Your task to perform on an android device: Open Google Maps and go to "Timeline" Image 0: 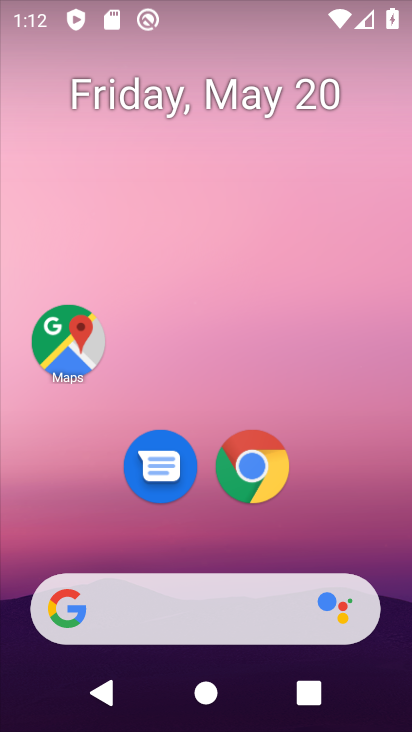
Step 0: click (74, 365)
Your task to perform on an android device: Open Google Maps and go to "Timeline" Image 1: 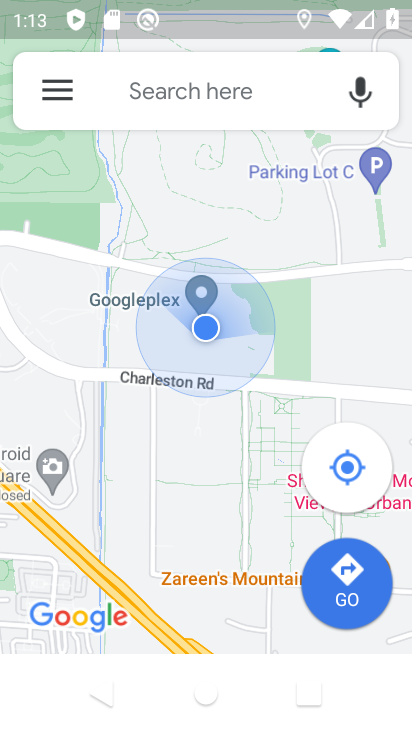
Step 1: click (41, 91)
Your task to perform on an android device: Open Google Maps and go to "Timeline" Image 2: 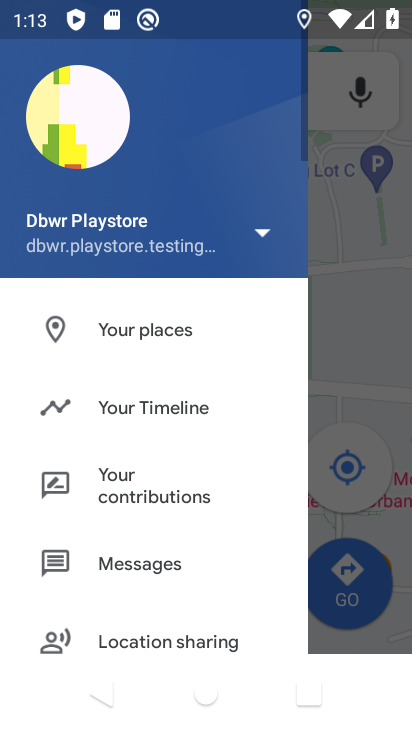
Step 2: click (128, 387)
Your task to perform on an android device: Open Google Maps and go to "Timeline" Image 3: 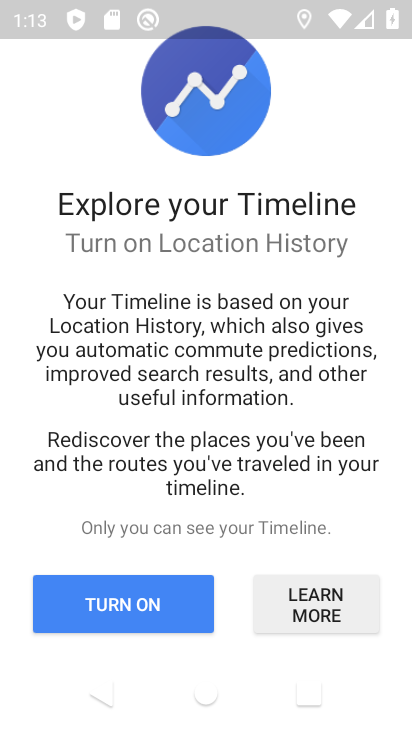
Step 3: click (177, 601)
Your task to perform on an android device: Open Google Maps and go to "Timeline" Image 4: 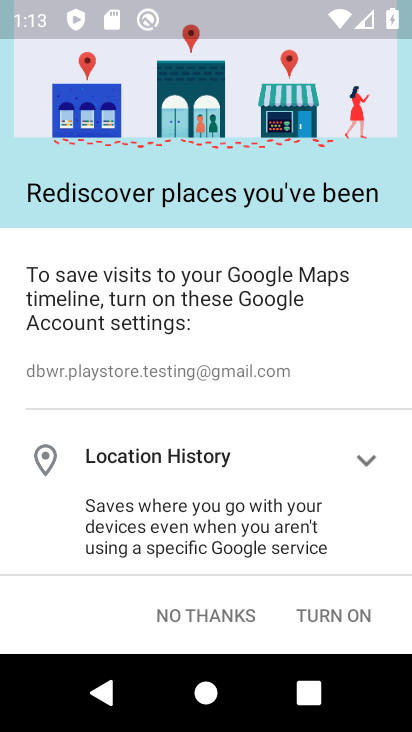
Step 4: click (309, 605)
Your task to perform on an android device: Open Google Maps and go to "Timeline" Image 5: 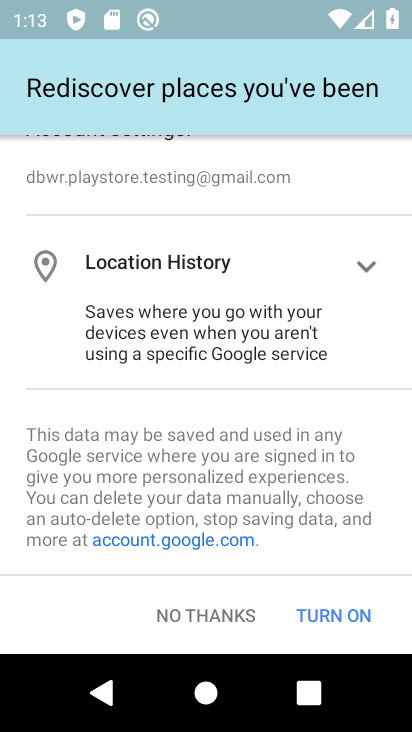
Step 5: click (311, 604)
Your task to perform on an android device: Open Google Maps and go to "Timeline" Image 6: 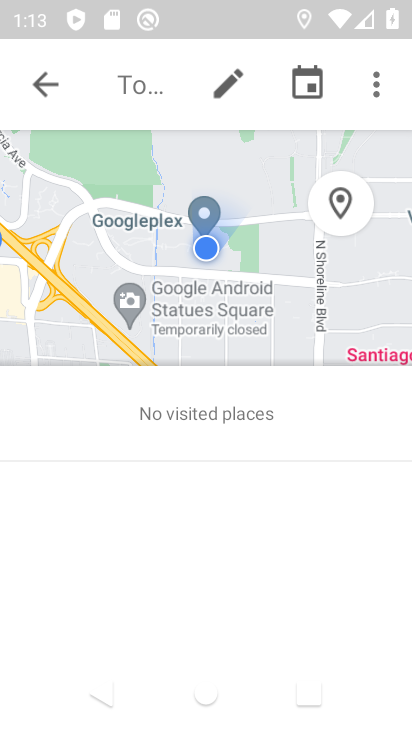
Step 6: task complete